Your task to perform on an android device: turn on bluetooth scan Image 0: 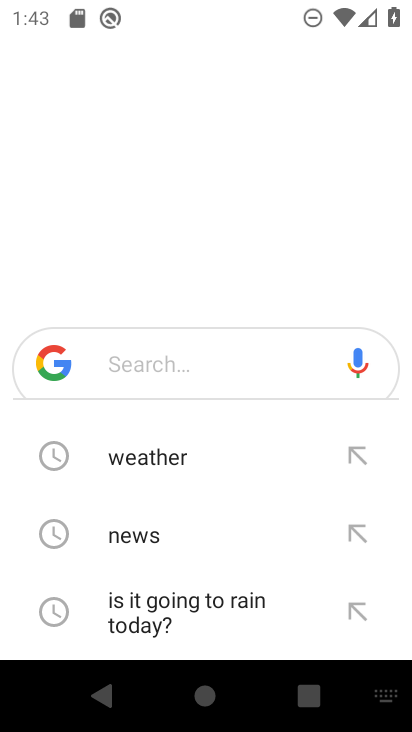
Step 0: press home button
Your task to perform on an android device: turn on bluetooth scan Image 1: 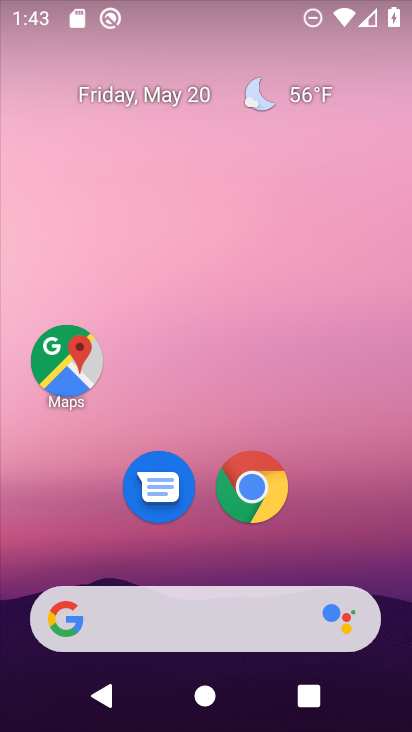
Step 1: drag from (212, 561) to (274, 137)
Your task to perform on an android device: turn on bluetooth scan Image 2: 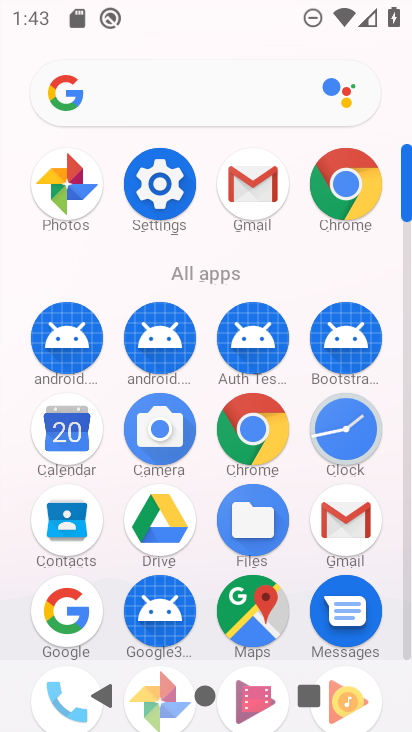
Step 2: click (160, 171)
Your task to perform on an android device: turn on bluetooth scan Image 3: 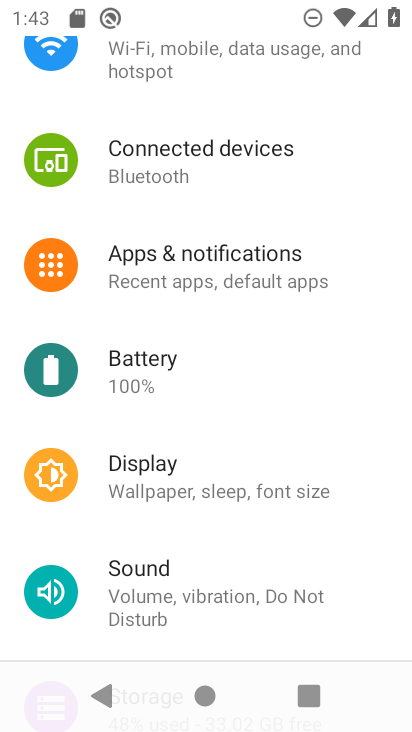
Step 3: drag from (217, 572) to (275, 198)
Your task to perform on an android device: turn on bluetooth scan Image 4: 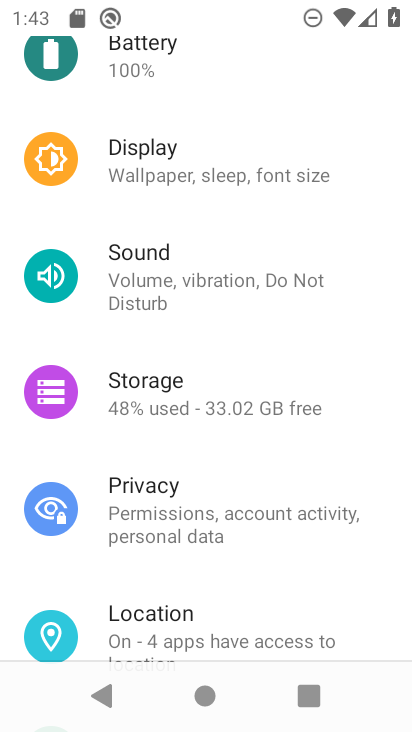
Step 4: click (210, 608)
Your task to perform on an android device: turn on bluetooth scan Image 5: 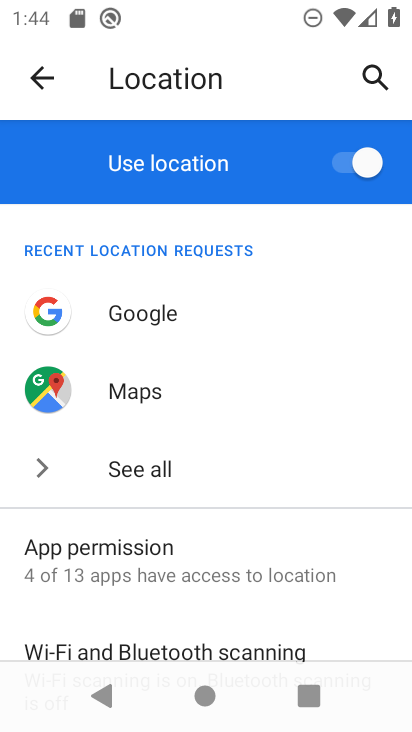
Step 5: click (239, 623)
Your task to perform on an android device: turn on bluetooth scan Image 6: 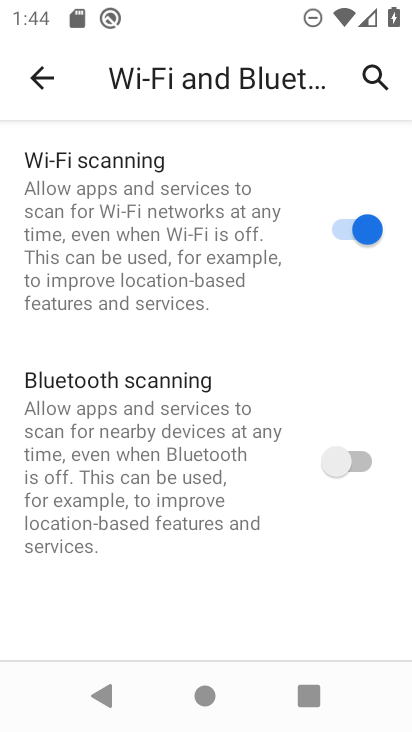
Step 6: click (356, 456)
Your task to perform on an android device: turn on bluetooth scan Image 7: 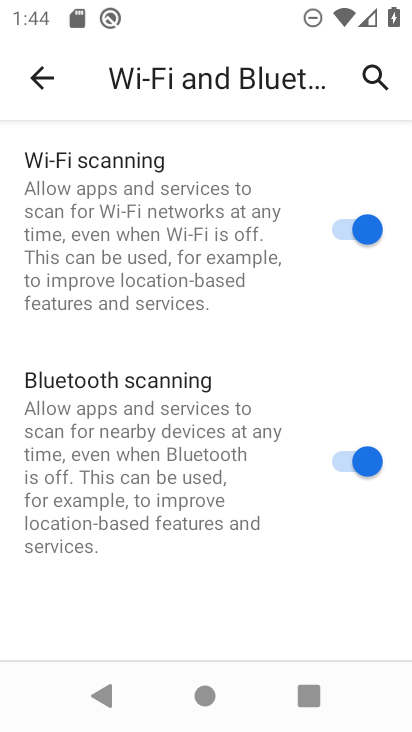
Step 7: task complete